Your task to perform on an android device: Set the phone to "Do not disturb". Image 0: 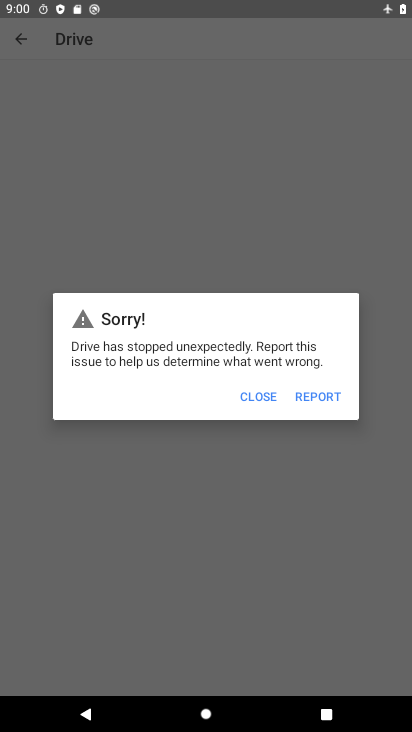
Step 0: press home button
Your task to perform on an android device: Set the phone to "Do not disturb". Image 1: 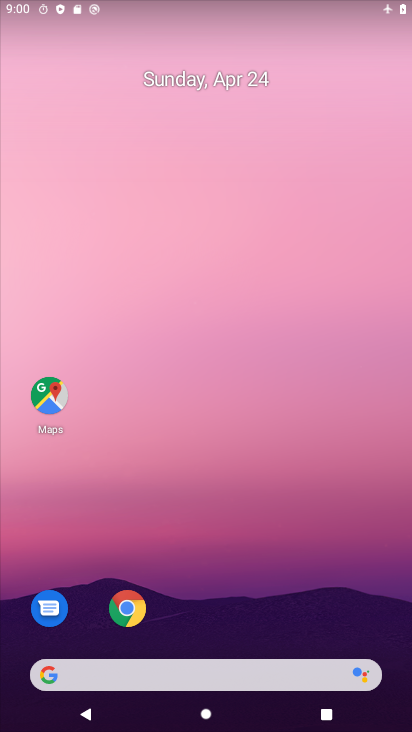
Step 1: drag from (264, 548) to (314, 60)
Your task to perform on an android device: Set the phone to "Do not disturb". Image 2: 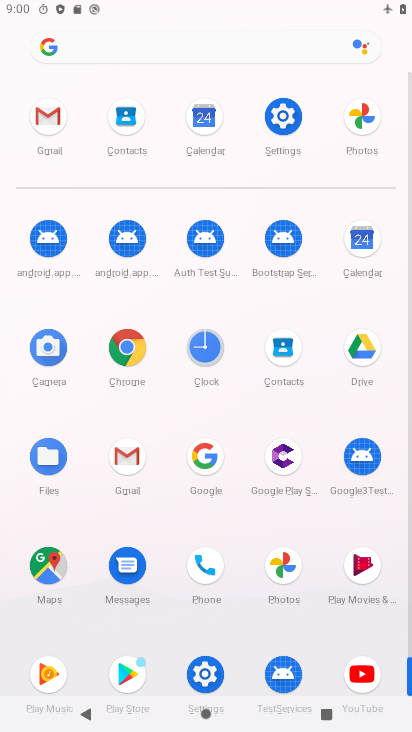
Step 2: click (283, 112)
Your task to perform on an android device: Set the phone to "Do not disturb". Image 3: 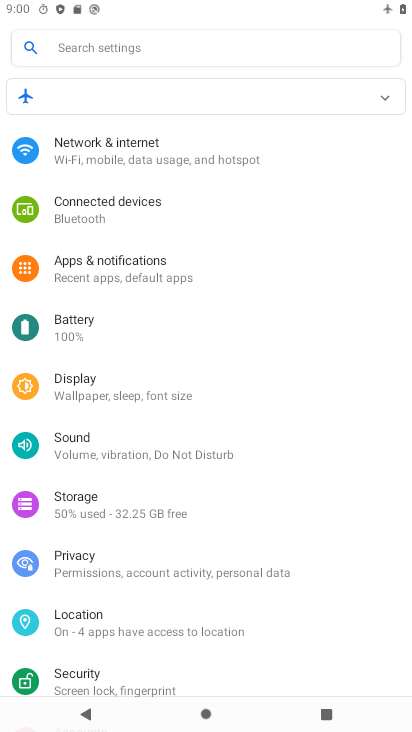
Step 3: click (210, 448)
Your task to perform on an android device: Set the phone to "Do not disturb". Image 4: 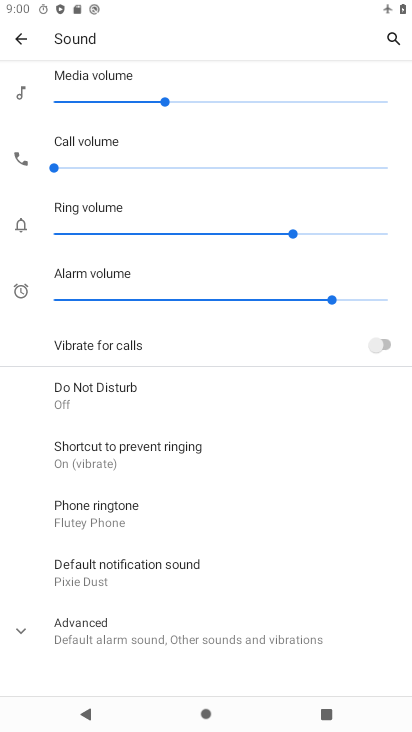
Step 4: click (148, 399)
Your task to perform on an android device: Set the phone to "Do not disturb". Image 5: 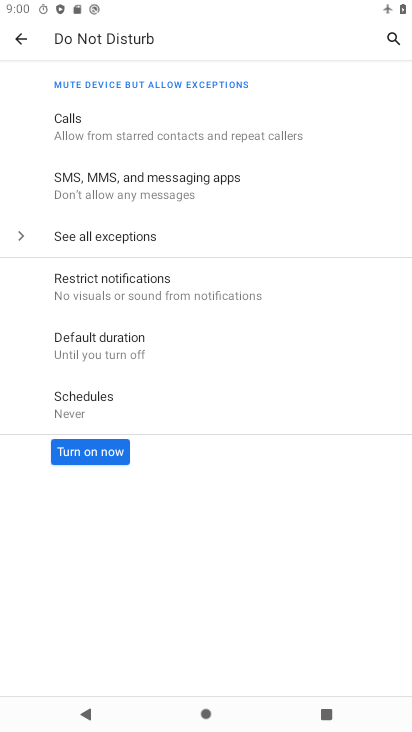
Step 5: click (109, 445)
Your task to perform on an android device: Set the phone to "Do not disturb". Image 6: 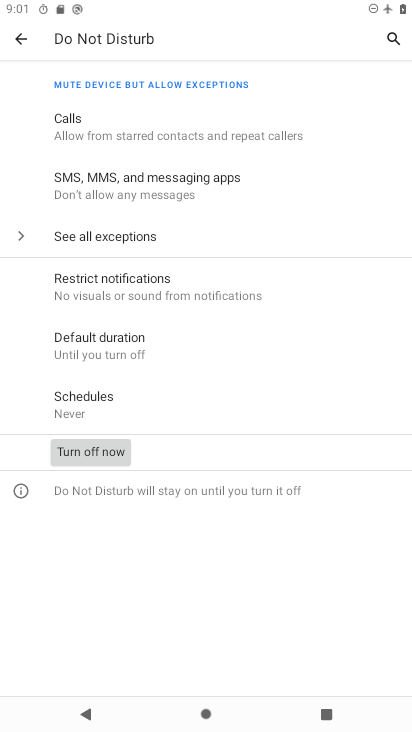
Step 6: task complete